Your task to perform on an android device: star an email in the gmail app Image 0: 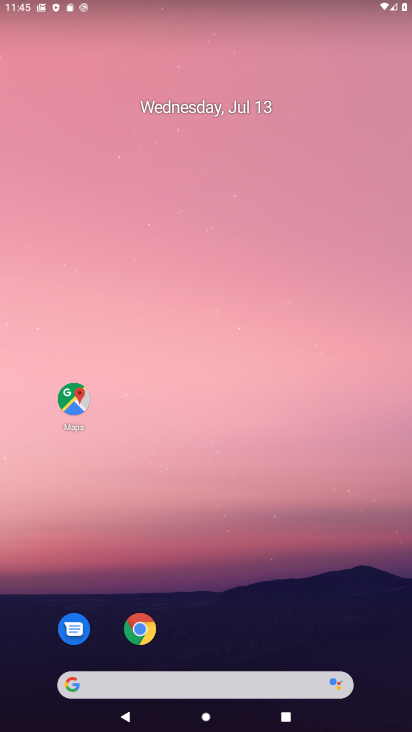
Step 0: drag from (277, 568) to (219, 118)
Your task to perform on an android device: star an email in the gmail app Image 1: 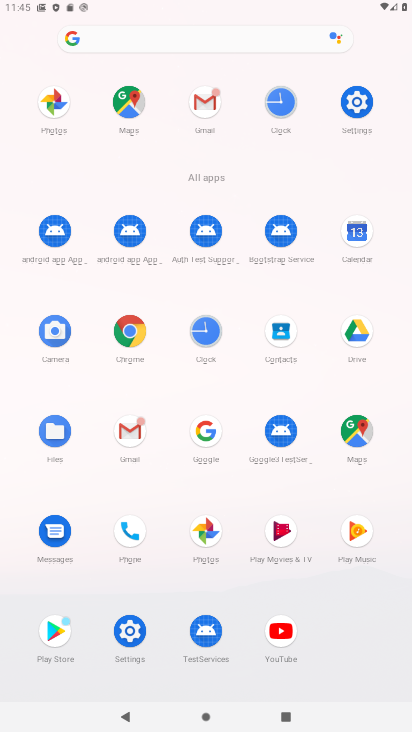
Step 1: click (203, 107)
Your task to perform on an android device: star an email in the gmail app Image 2: 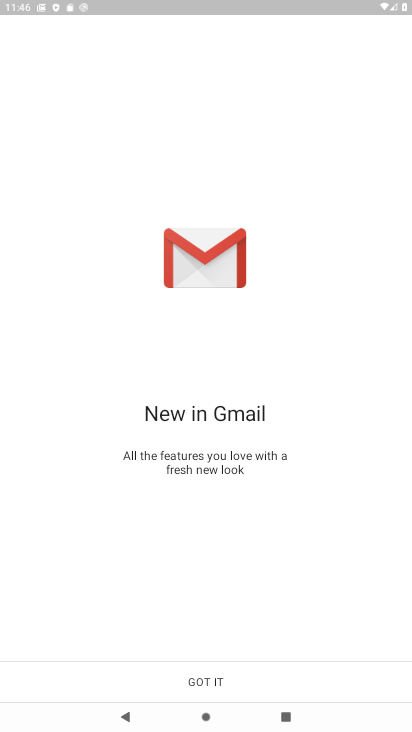
Step 2: click (194, 682)
Your task to perform on an android device: star an email in the gmail app Image 3: 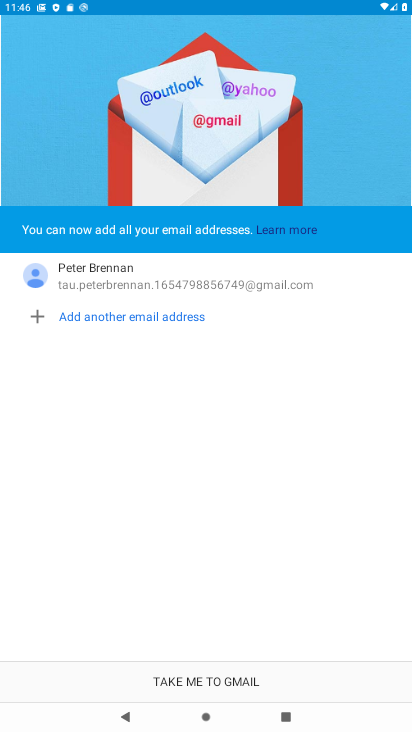
Step 3: click (209, 675)
Your task to perform on an android device: star an email in the gmail app Image 4: 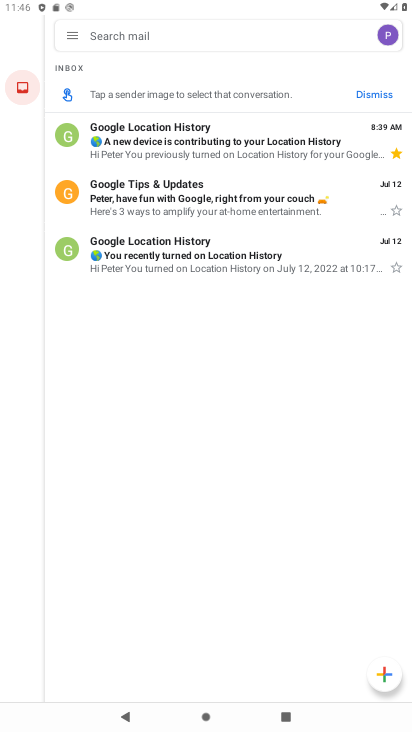
Step 4: click (401, 212)
Your task to perform on an android device: star an email in the gmail app Image 5: 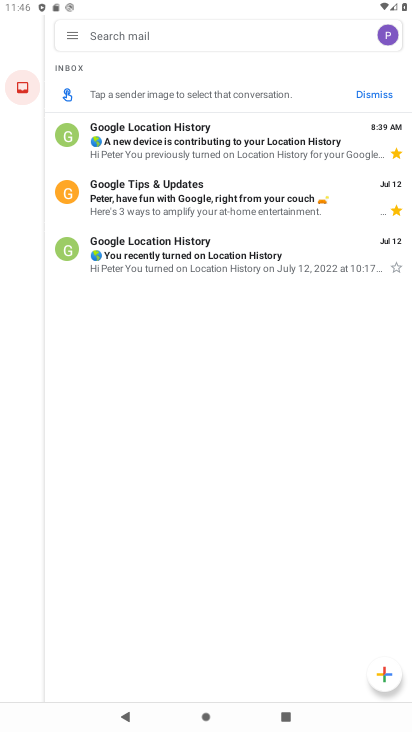
Step 5: task complete